Your task to perform on an android device: Go to Yahoo.com Image 0: 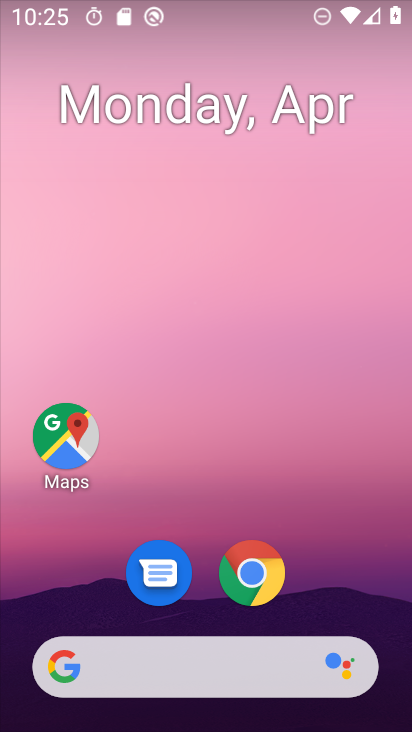
Step 0: drag from (334, 575) to (303, 44)
Your task to perform on an android device: Go to Yahoo.com Image 1: 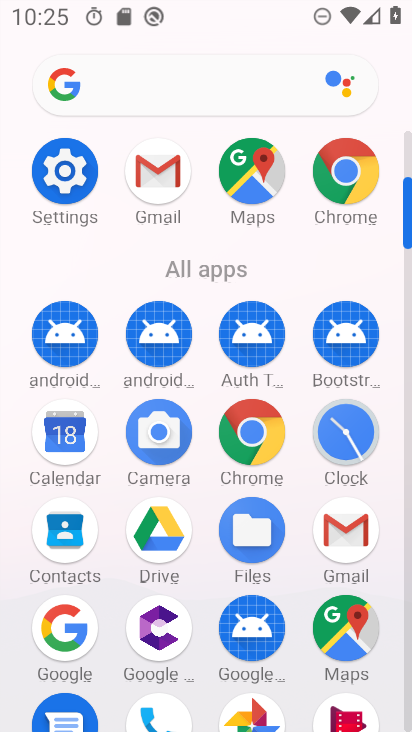
Step 1: click (347, 162)
Your task to perform on an android device: Go to Yahoo.com Image 2: 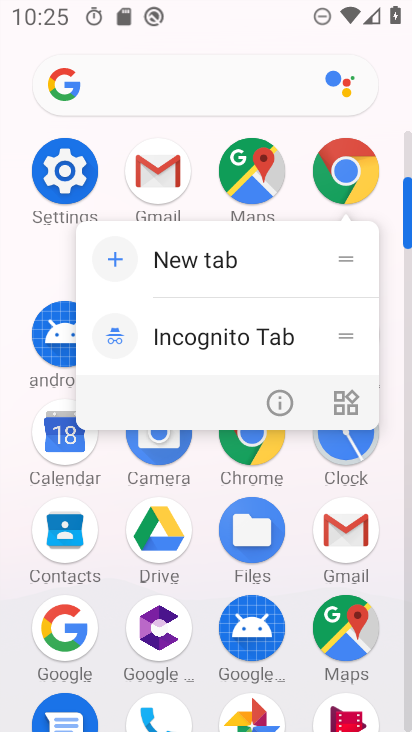
Step 2: click (347, 162)
Your task to perform on an android device: Go to Yahoo.com Image 3: 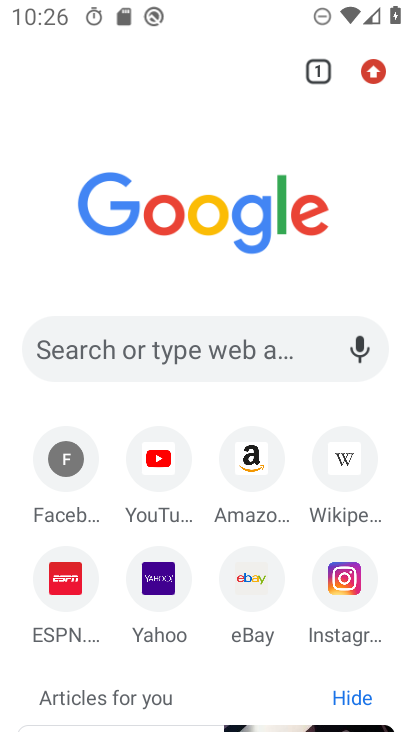
Step 3: click (162, 565)
Your task to perform on an android device: Go to Yahoo.com Image 4: 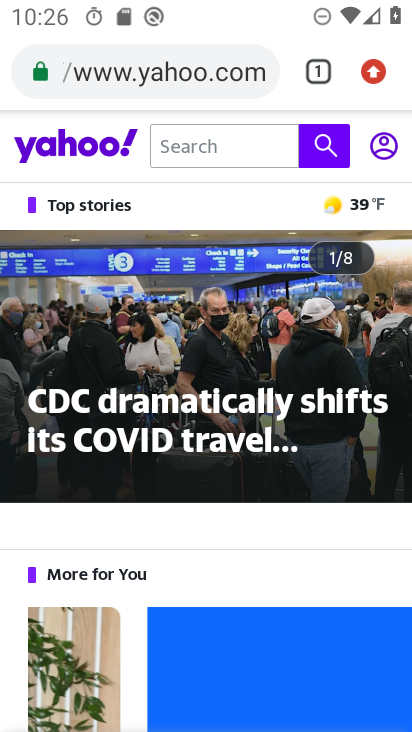
Step 4: task complete